Your task to perform on an android device: snooze an email in the gmail app Image 0: 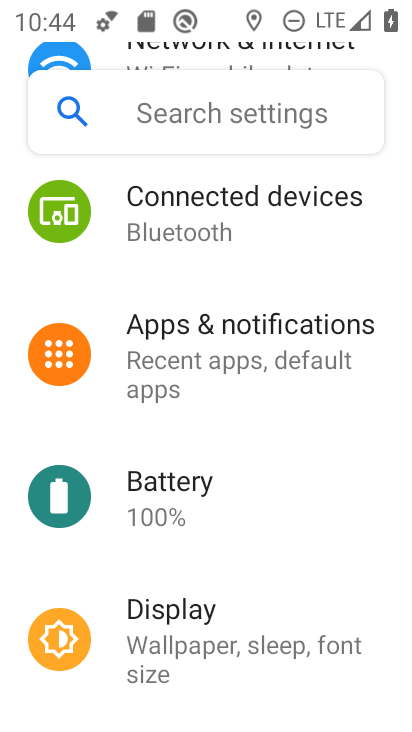
Step 0: press home button
Your task to perform on an android device: snooze an email in the gmail app Image 1: 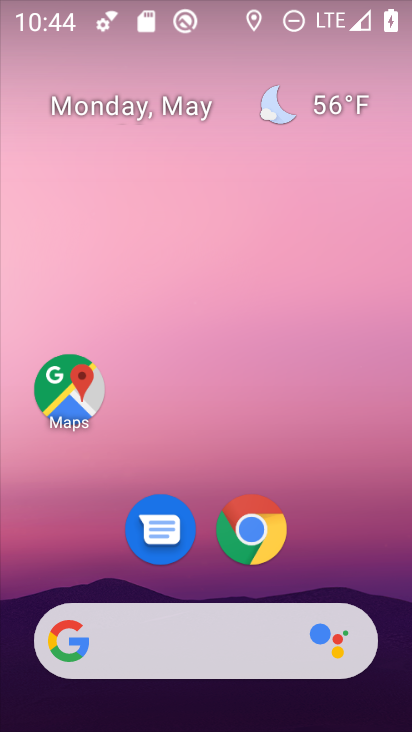
Step 1: drag from (240, 627) to (271, 154)
Your task to perform on an android device: snooze an email in the gmail app Image 2: 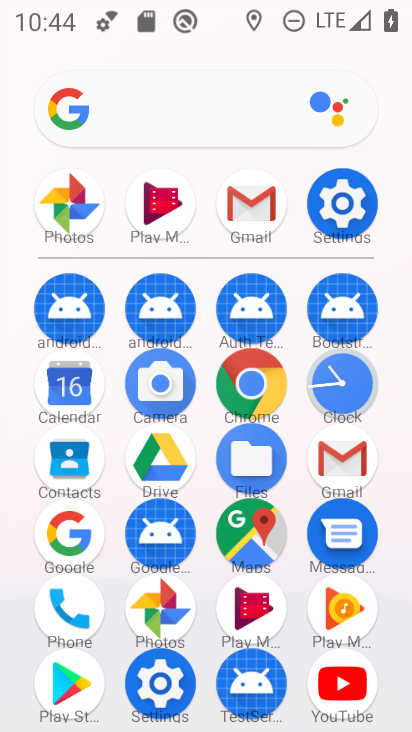
Step 2: click (343, 458)
Your task to perform on an android device: snooze an email in the gmail app Image 3: 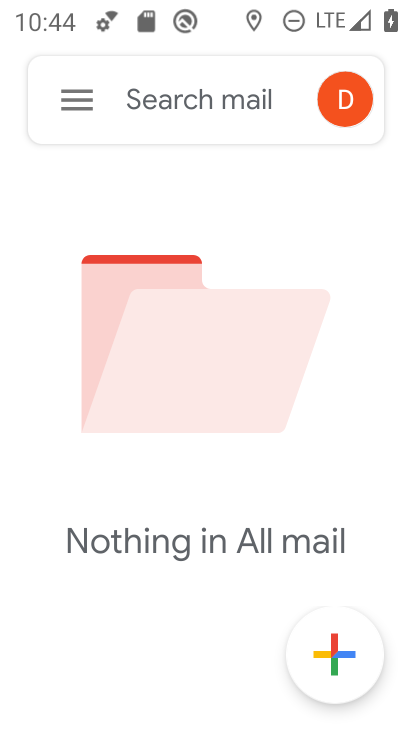
Step 3: click (65, 114)
Your task to perform on an android device: snooze an email in the gmail app Image 4: 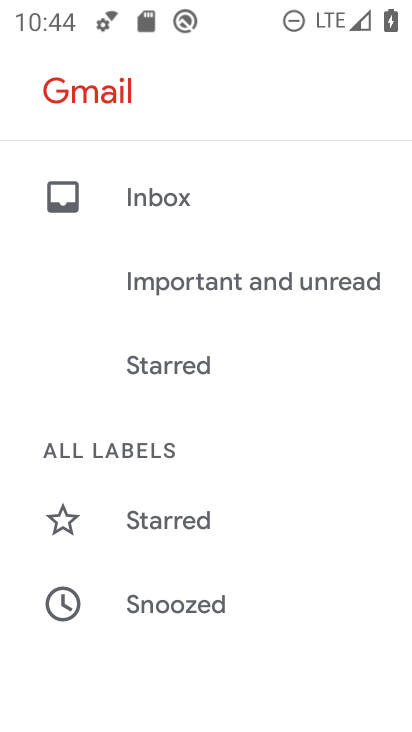
Step 4: drag from (138, 537) to (192, 43)
Your task to perform on an android device: snooze an email in the gmail app Image 5: 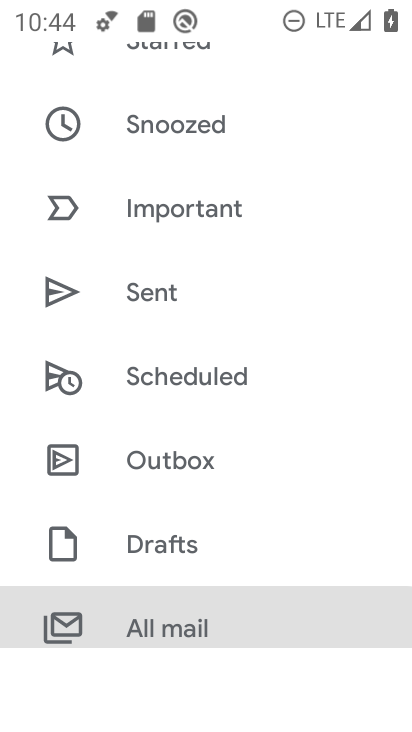
Step 5: click (219, 623)
Your task to perform on an android device: snooze an email in the gmail app Image 6: 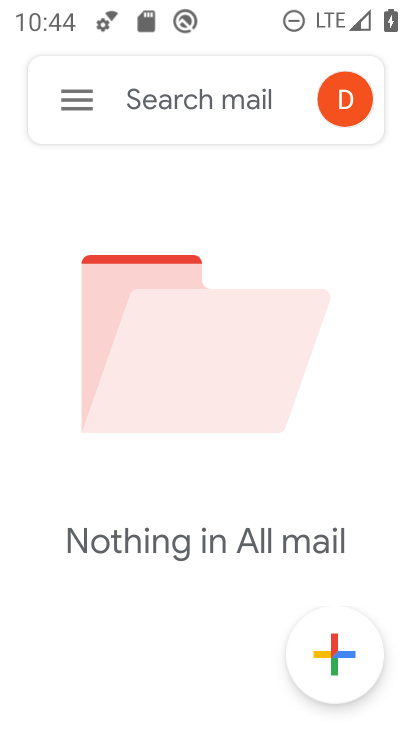
Step 6: task complete